Your task to perform on an android device: toggle location history Image 0: 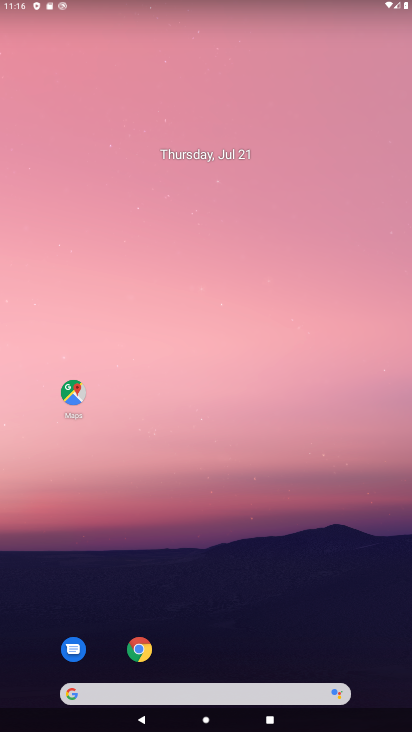
Step 0: drag from (232, 660) to (258, 174)
Your task to perform on an android device: toggle location history Image 1: 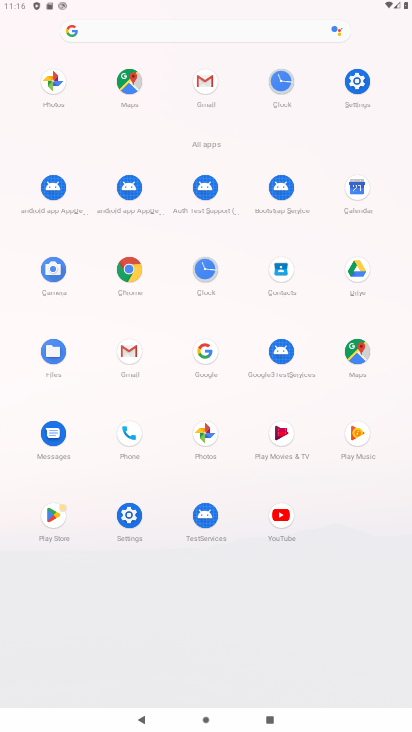
Step 1: click (139, 84)
Your task to perform on an android device: toggle location history Image 2: 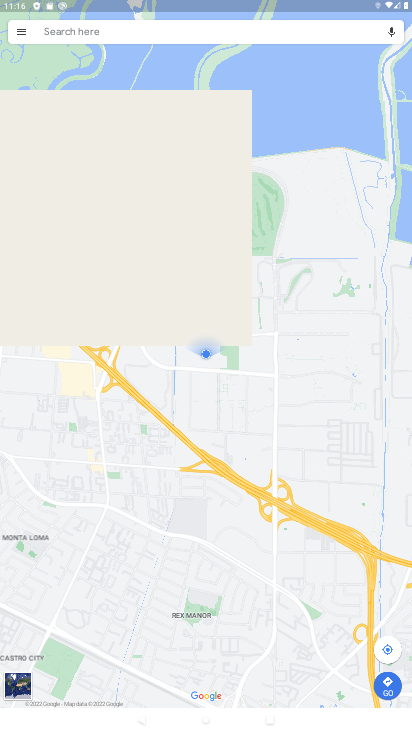
Step 2: click (18, 28)
Your task to perform on an android device: toggle location history Image 3: 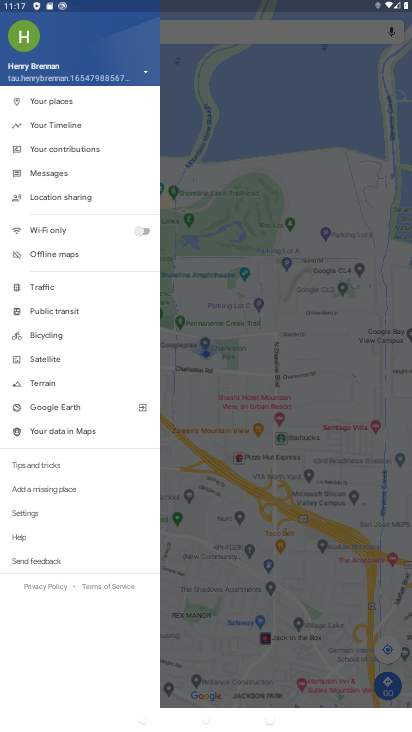
Step 3: click (77, 127)
Your task to perform on an android device: toggle location history Image 4: 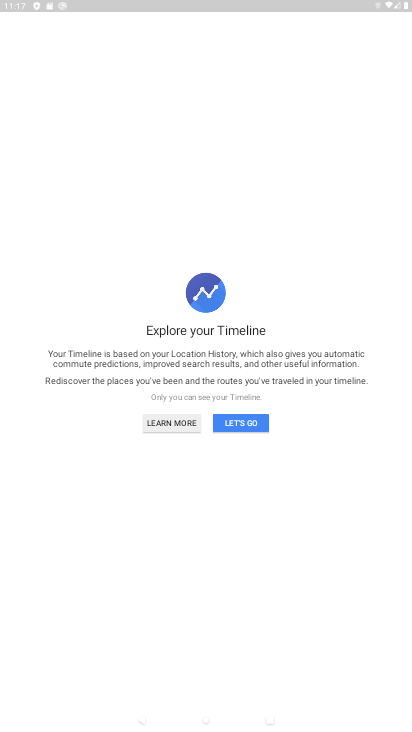
Step 4: click (238, 429)
Your task to perform on an android device: toggle location history Image 5: 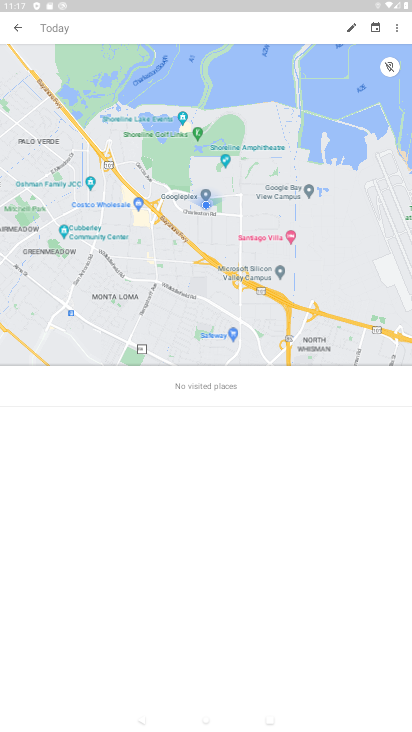
Step 5: click (398, 21)
Your task to perform on an android device: toggle location history Image 6: 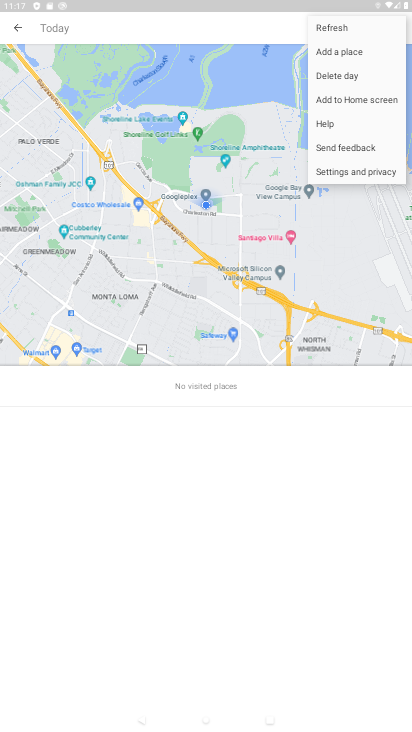
Step 6: click (367, 172)
Your task to perform on an android device: toggle location history Image 7: 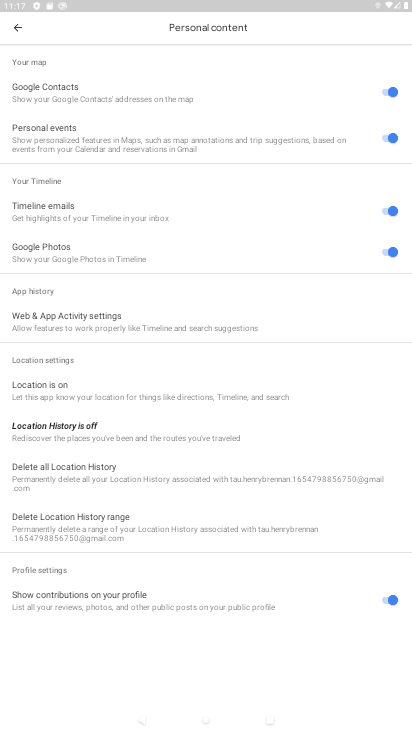
Step 7: click (79, 432)
Your task to perform on an android device: toggle location history Image 8: 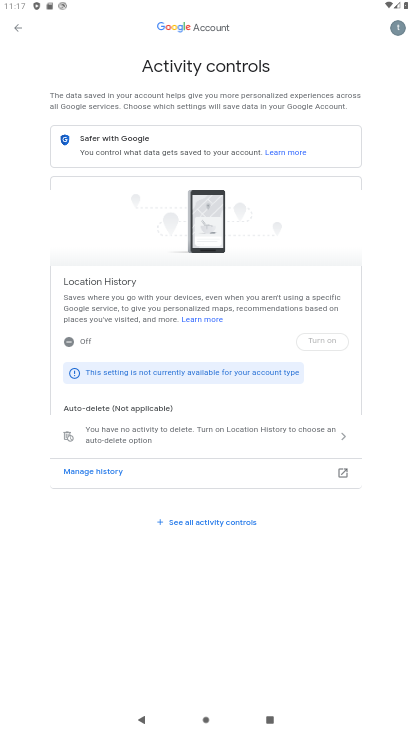
Step 8: task complete